Your task to perform on an android device: Go to Google maps Image 0: 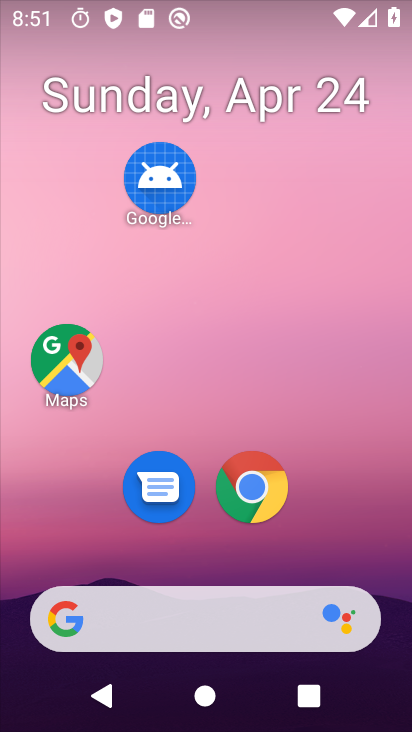
Step 0: click (67, 379)
Your task to perform on an android device: Go to Google maps Image 1: 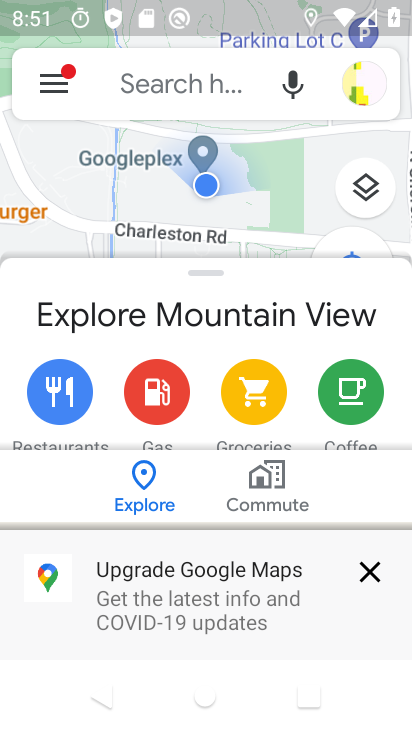
Step 1: task complete